Your task to perform on an android device: Go to network settings Image 0: 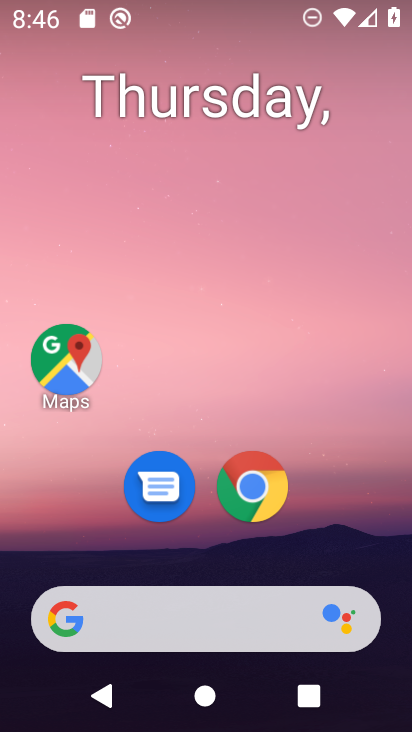
Step 0: drag from (56, 543) to (195, 9)
Your task to perform on an android device: Go to network settings Image 1: 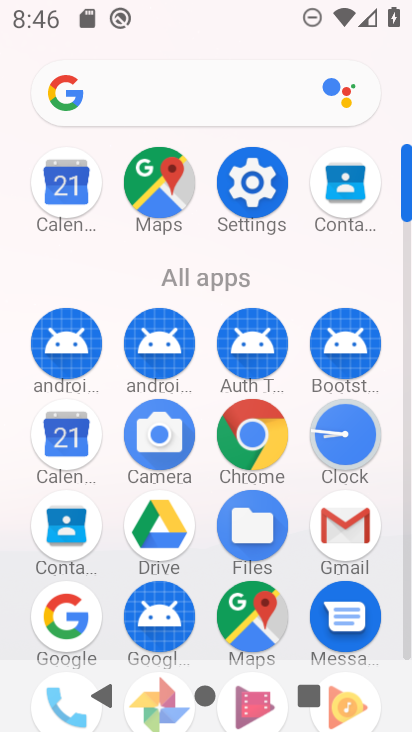
Step 1: click (257, 190)
Your task to perform on an android device: Go to network settings Image 2: 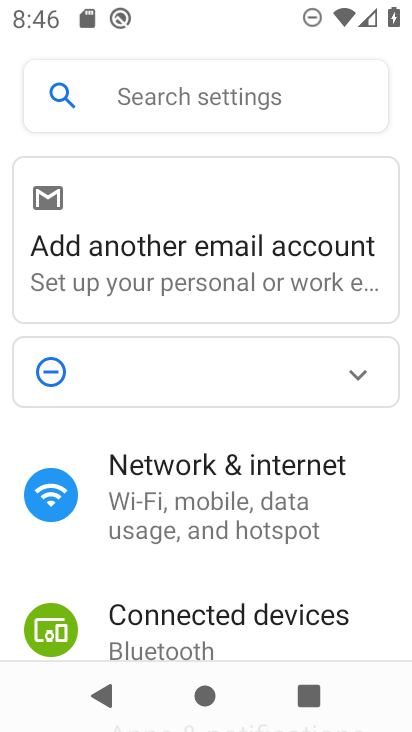
Step 2: click (209, 488)
Your task to perform on an android device: Go to network settings Image 3: 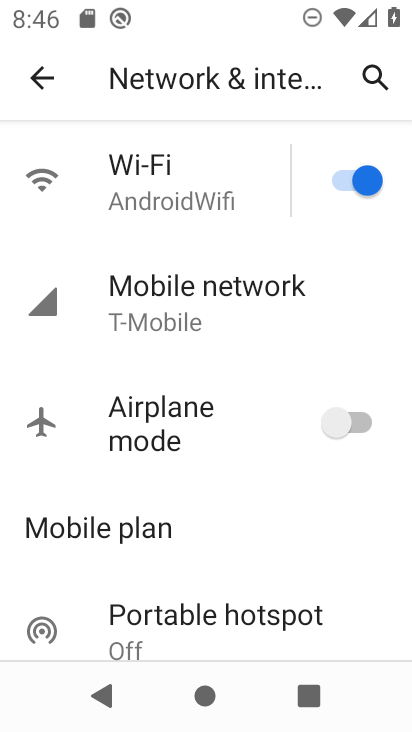
Step 3: task complete